Your task to perform on an android device: Open settings Image 0: 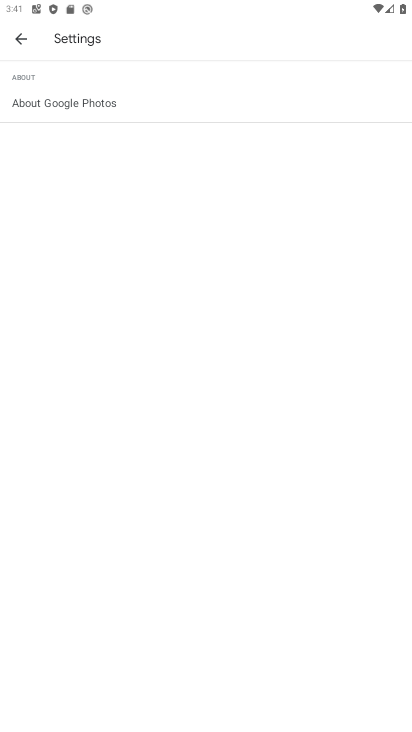
Step 0: press home button
Your task to perform on an android device: Open settings Image 1: 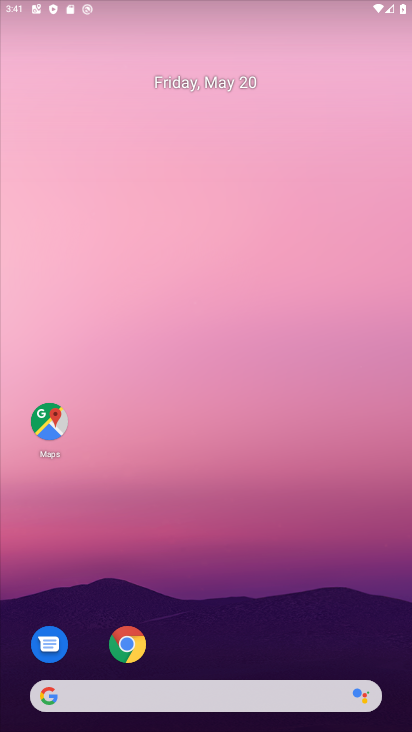
Step 1: drag from (258, 535) to (262, 192)
Your task to perform on an android device: Open settings Image 2: 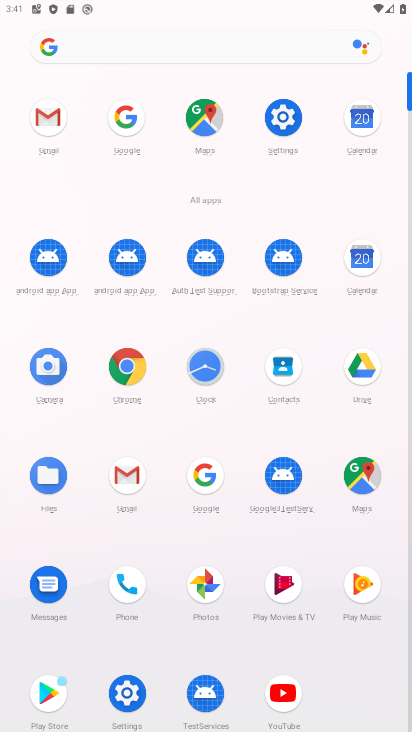
Step 2: click (294, 132)
Your task to perform on an android device: Open settings Image 3: 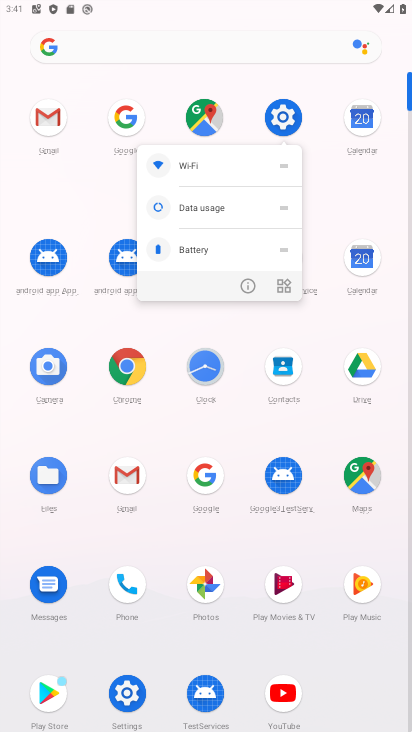
Step 3: click (294, 132)
Your task to perform on an android device: Open settings Image 4: 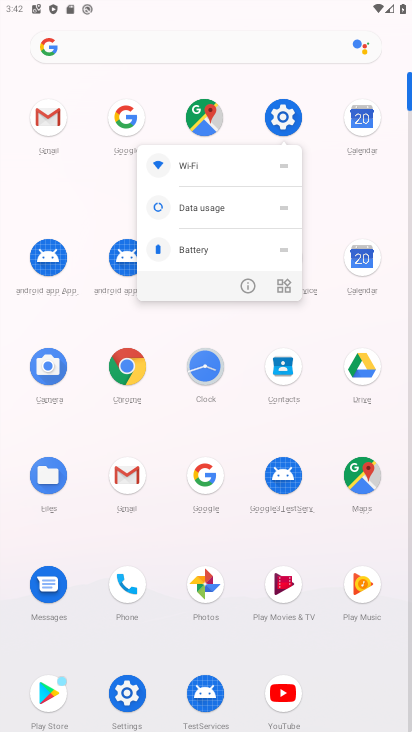
Step 4: click (281, 127)
Your task to perform on an android device: Open settings Image 5: 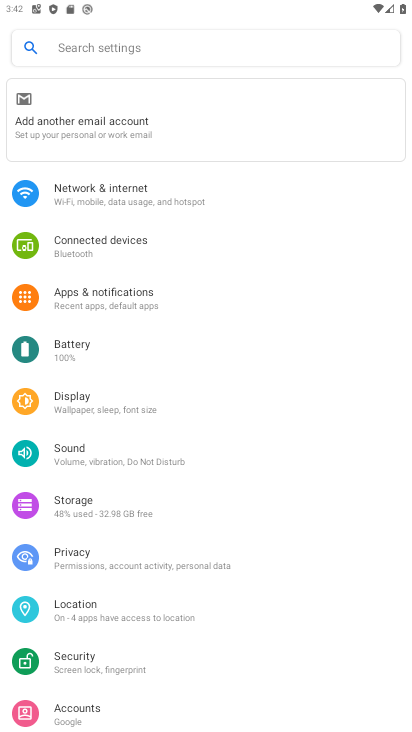
Step 5: task complete